Your task to perform on an android device: Open calendar and show me the fourth week of next month Image 0: 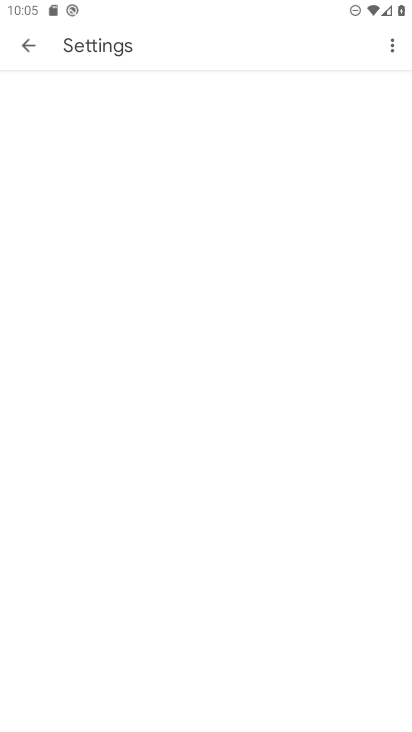
Step 0: click (123, 683)
Your task to perform on an android device: Open calendar and show me the fourth week of next month Image 1: 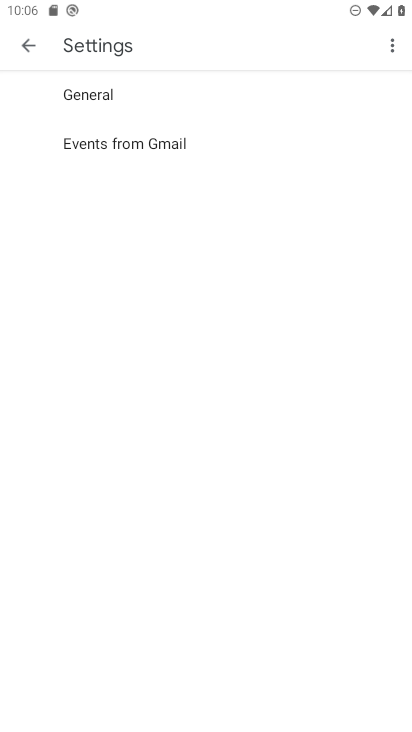
Step 1: press home button
Your task to perform on an android device: Open calendar and show me the fourth week of next month Image 2: 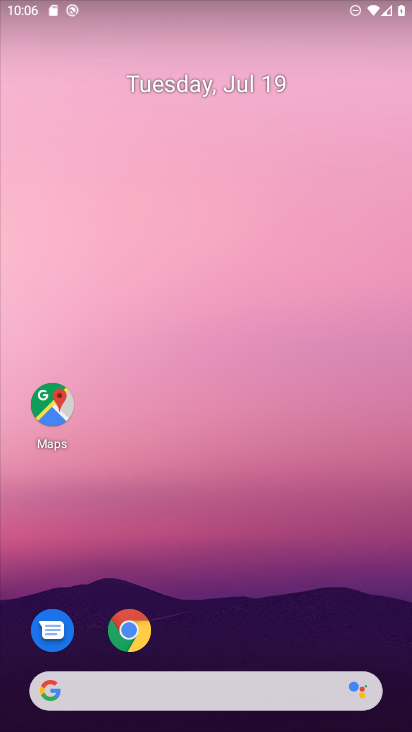
Step 2: drag from (61, 608) to (387, 16)
Your task to perform on an android device: Open calendar and show me the fourth week of next month Image 3: 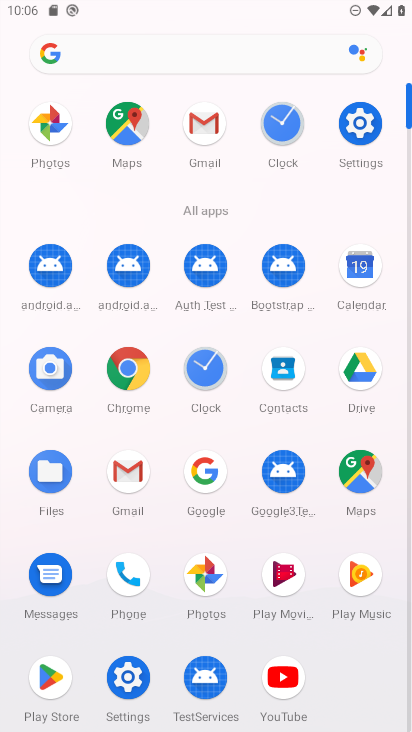
Step 3: click (360, 275)
Your task to perform on an android device: Open calendar and show me the fourth week of next month Image 4: 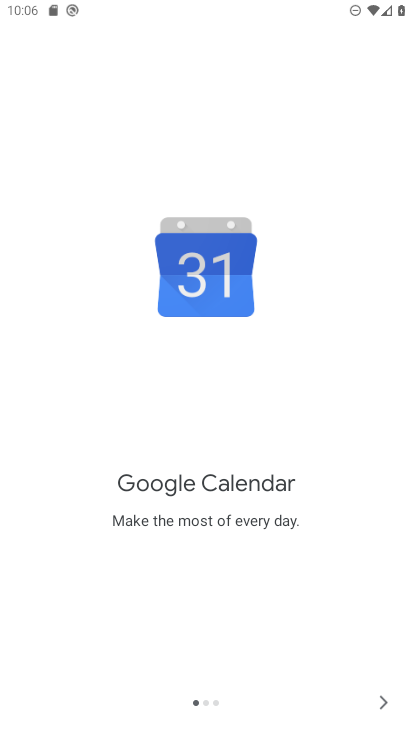
Step 4: click (385, 706)
Your task to perform on an android device: Open calendar and show me the fourth week of next month Image 5: 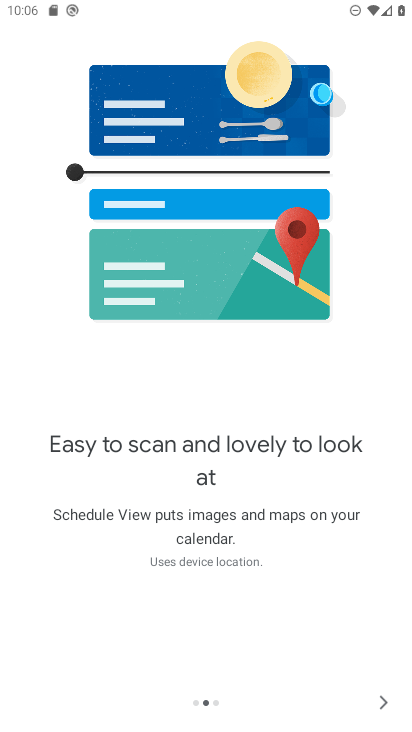
Step 5: click (382, 702)
Your task to perform on an android device: Open calendar and show me the fourth week of next month Image 6: 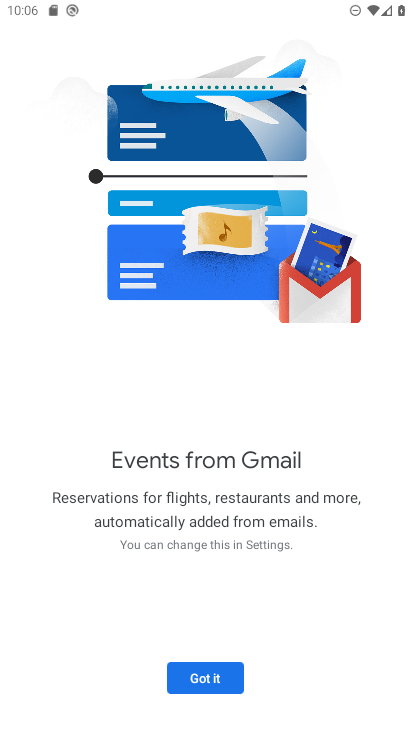
Step 6: click (236, 674)
Your task to perform on an android device: Open calendar and show me the fourth week of next month Image 7: 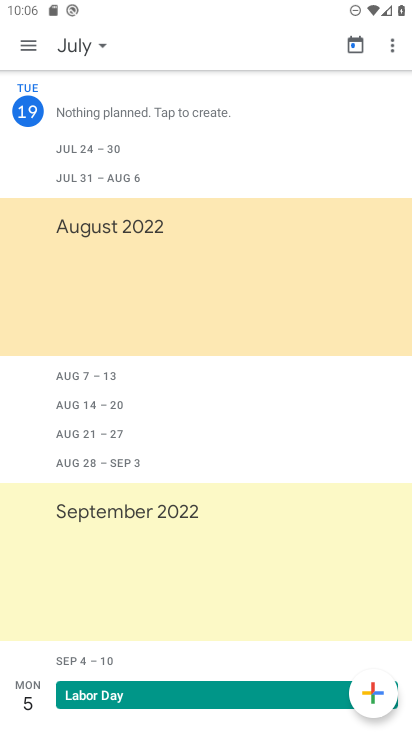
Step 7: click (84, 55)
Your task to perform on an android device: Open calendar and show me the fourth week of next month Image 8: 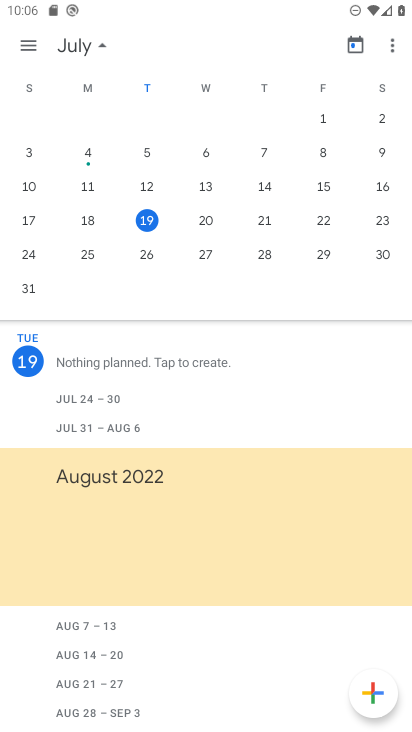
Step 8: drag from (378, 137) to (45, 84)
Your task to perform on an android device: Open calendar and show me the fourth week of next month Image 9: 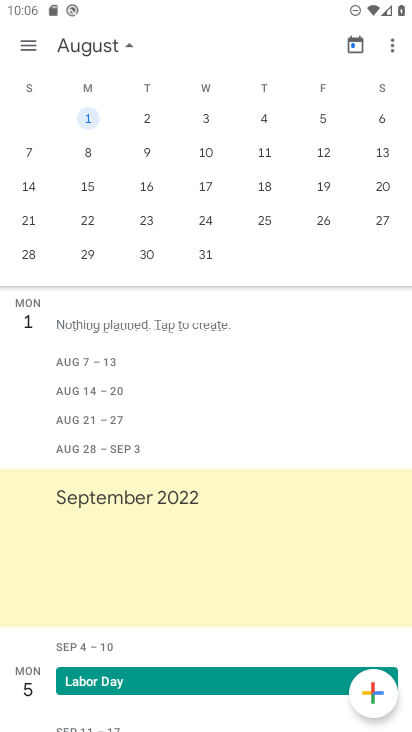
Step 9: click (85, 216)
Your task to perform on an android device: Open calendar and show me the fourth week of next month Image 10: 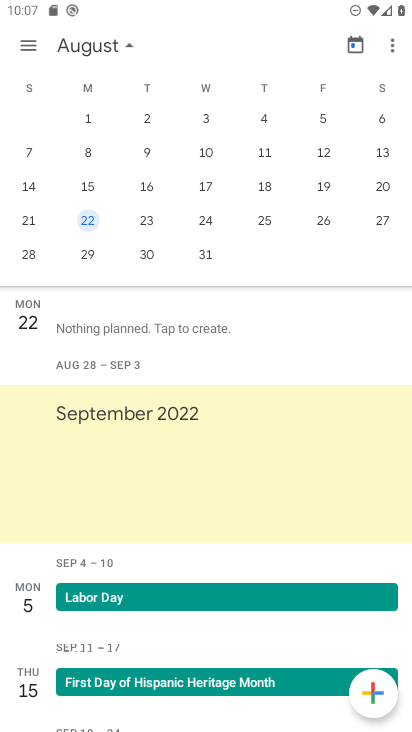
Step 10: task complete